Your task to perform on an android device: Do I have any events tomorrow? Image 0: 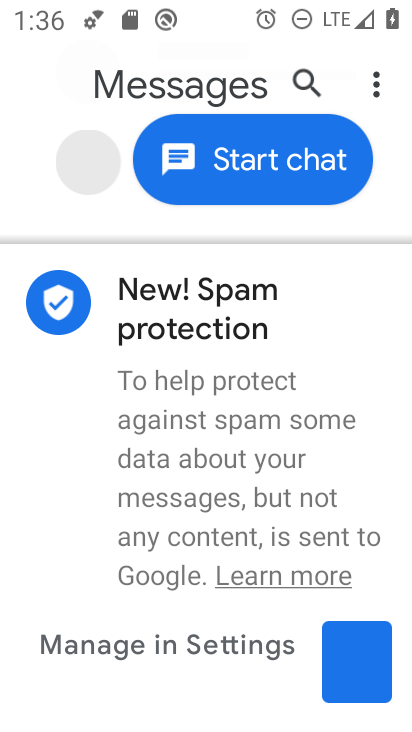
Step 0: press home button
Your task to perform on an android device: Do I have any events tomorrow? Image 1: 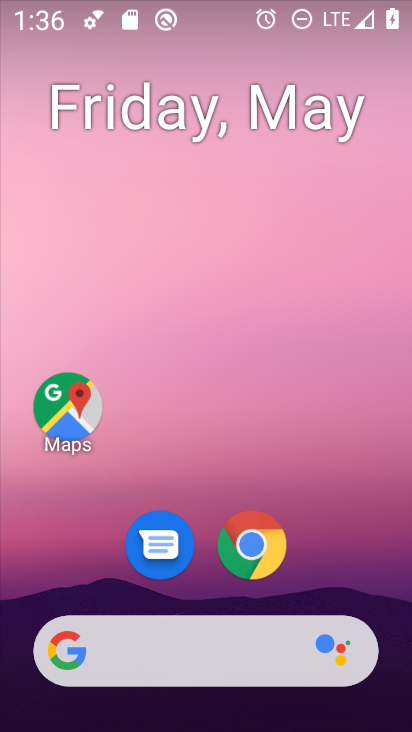
Step 1: drag from (336, 575) to (316, 273)
Your task to perform on an android device: Do I have any events tomorrow? Image 2: 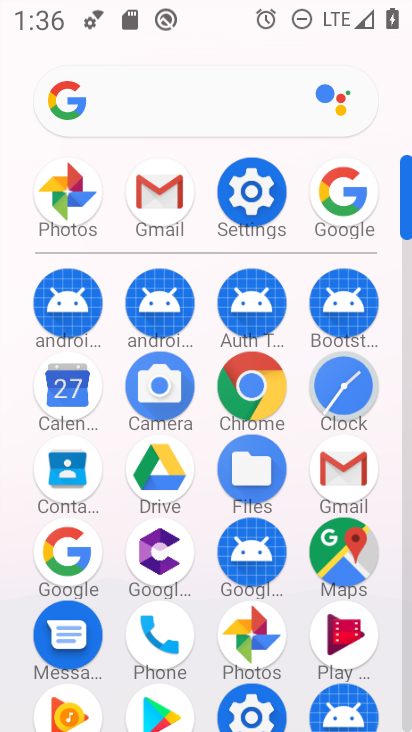
Step 2: click (70, 388)
Your task to perform on an android device: Do I have any events tomorrow? Image 3: 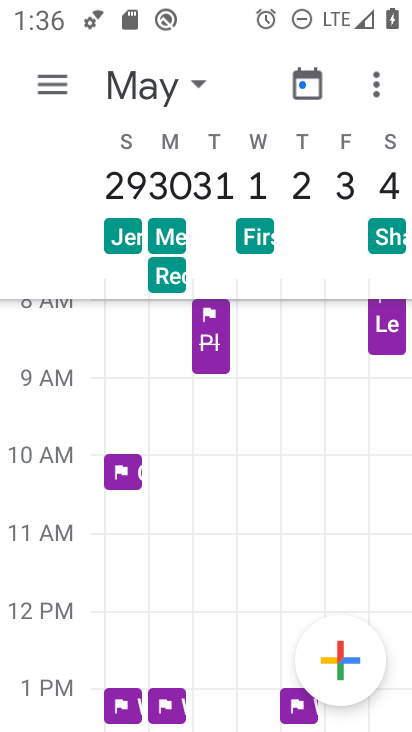
Step 3: click (383, 211)
Your task to perform on an android device: Do I have any events tomorrow? Image 4: 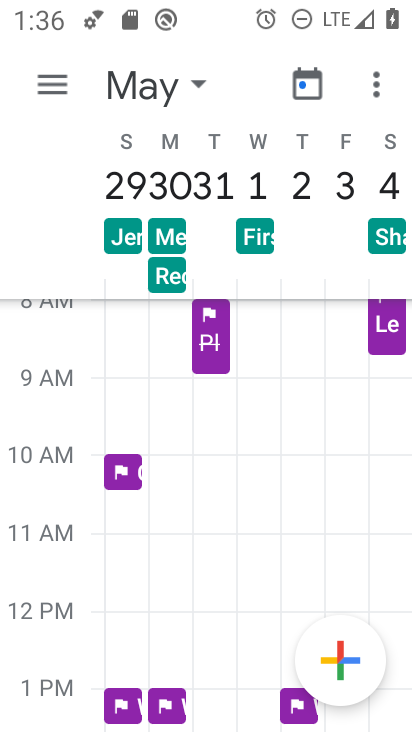
Step 4: drag from (162, 210) to (344, 237)
Your task to perform on an android device: Do I have any events tomorrow? Image 5: 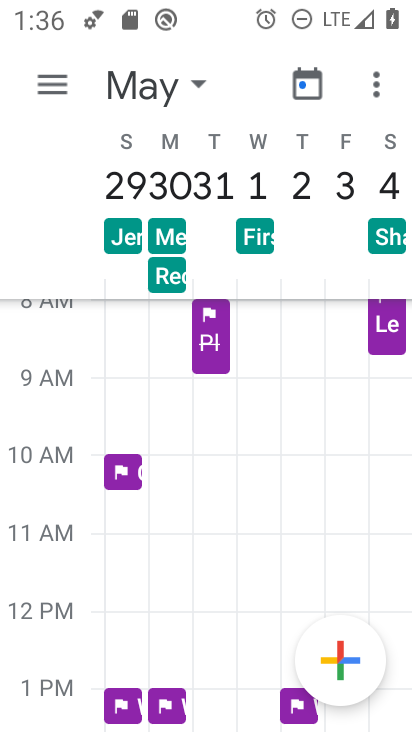
Step 5: click (204, 179)
Your task to perform on an android device: Do I have any events tomorrow? Image 6: 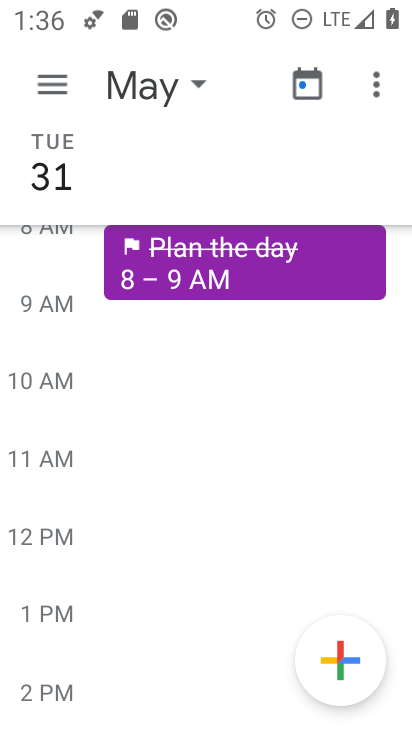
Step 6: drag from (155, 206) to (330, 240)
Your task to perform on an android device: Do I have any events tomorrow? Image 7: 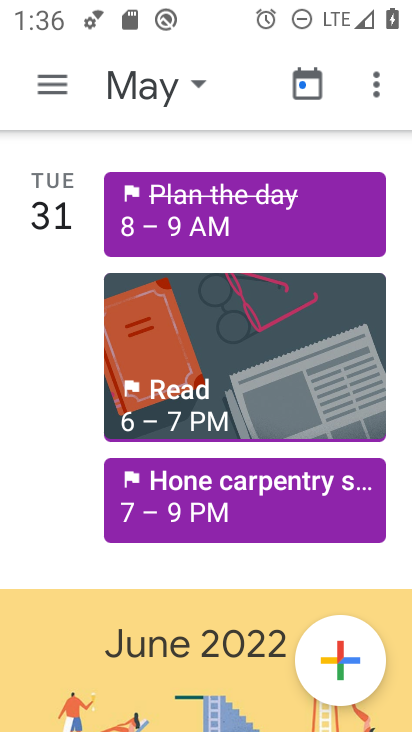
Step 7: click (52, 99)
Your task to perform on an android device: Do I have any events tomorrow? Image 8: 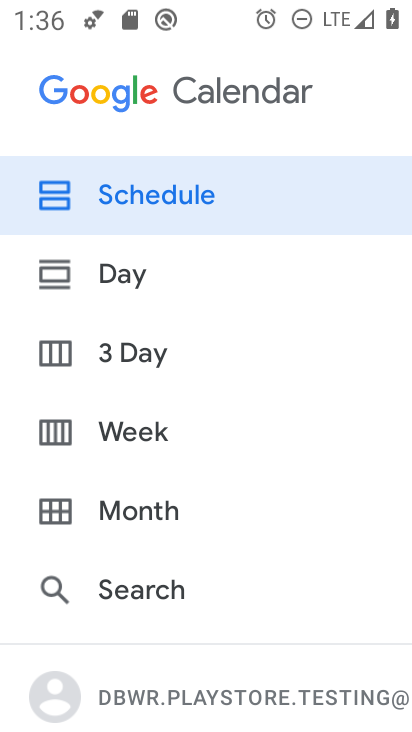
Step 8: click (176, 451)
Your task to perform on an android device: Do I have any events tomorrow? Image 9: 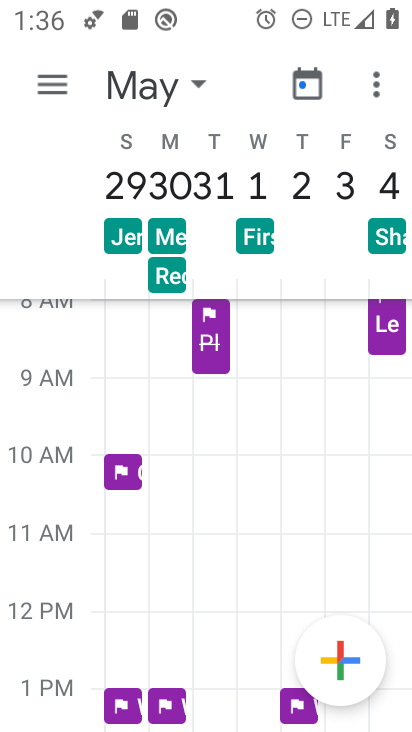
Step 9: click (133, 190)
Your task to perform on an android device: Do I have any events tomorrow? Image 10: 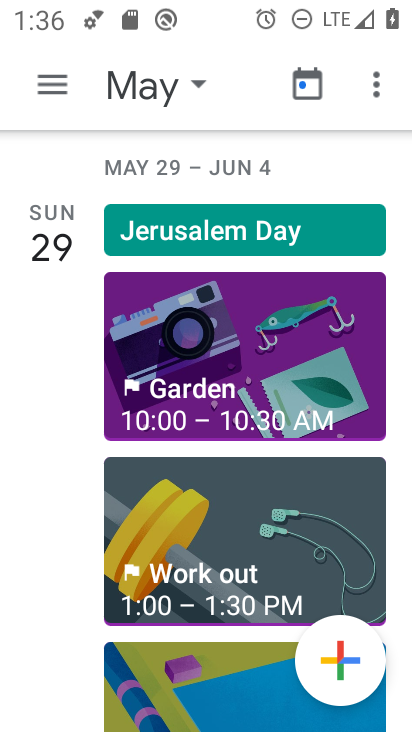
Step 10: task complete